Your task to perform on an android device: install app "Reddit" Image 0: 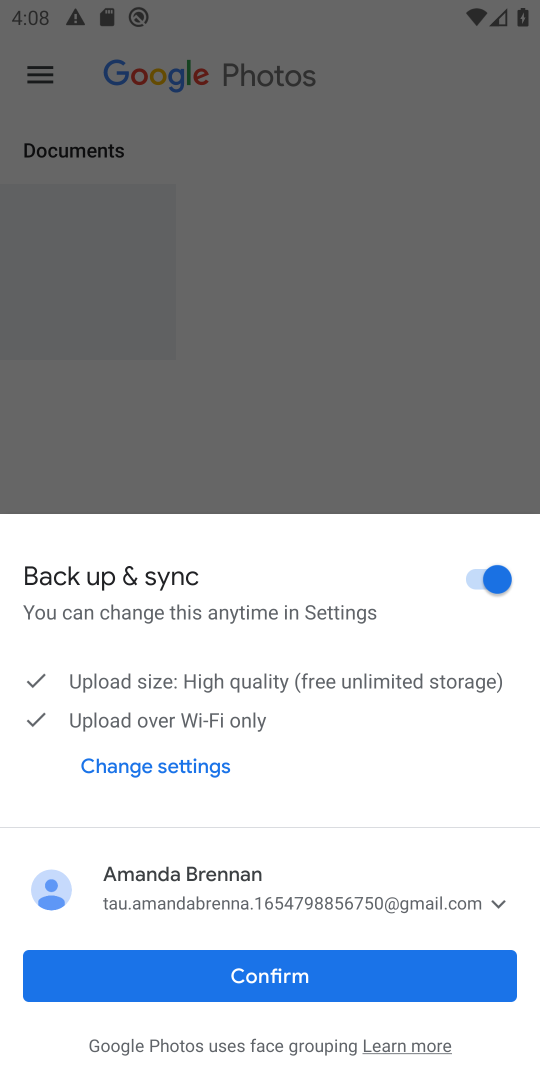
Step 0: press home button
Your task to perform on an android device: install app "Reddit" Image 1: 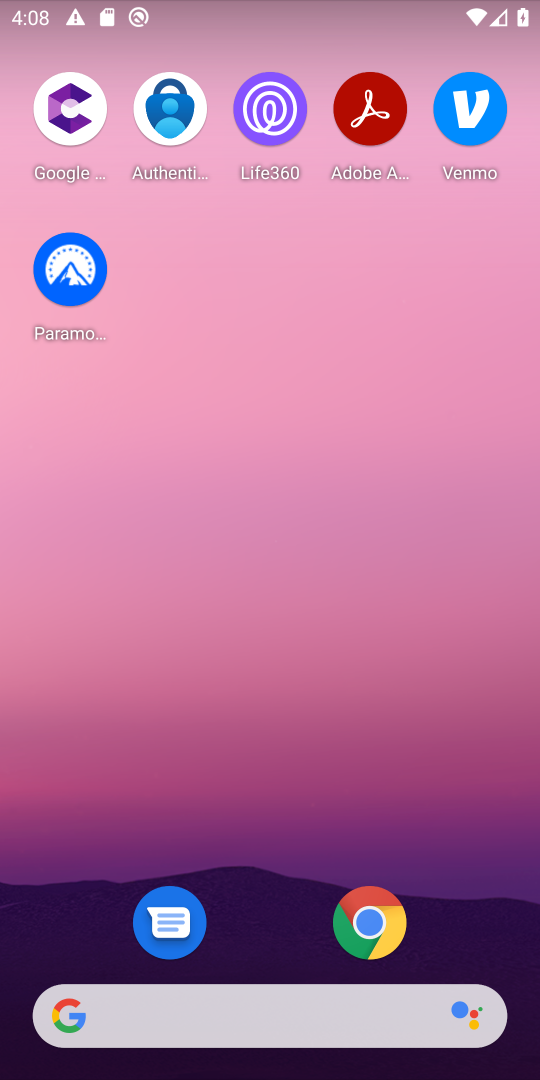
Step 1: drag from (272, 936) to (325, 0)
Your task to perform on an android device: install app "Reddit" Image 2: 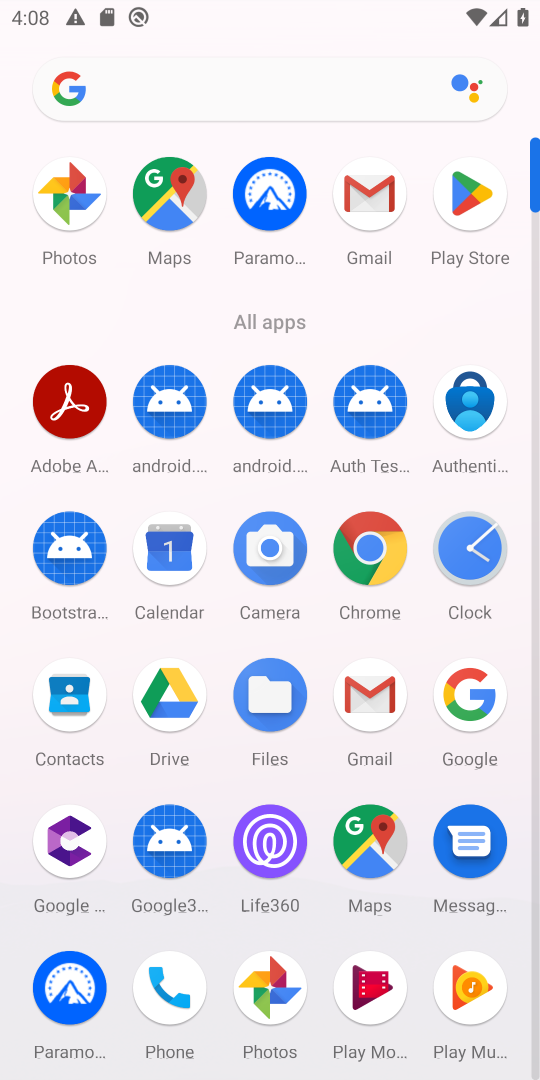
Step 2: click (473, 197)
Your task to perform on an android device: install app "Reddit" Image 3: 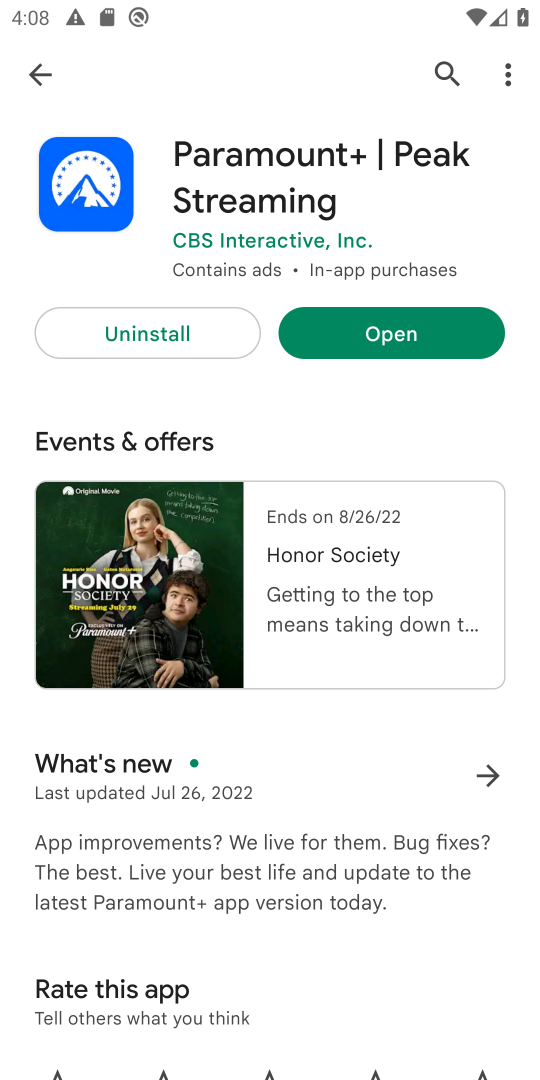
Step 3: click (440, 69)
Your task to perform on an android device: install app "Reddit" Image 4: 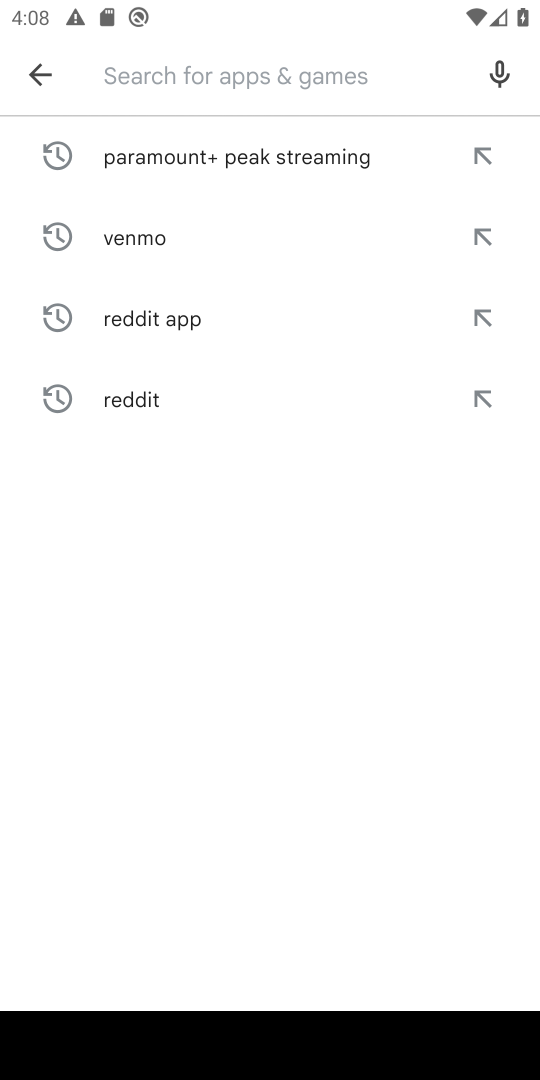
Step 4: type "Reddit"
Your task to perform on an android device: install app "Reddit" Image 5: 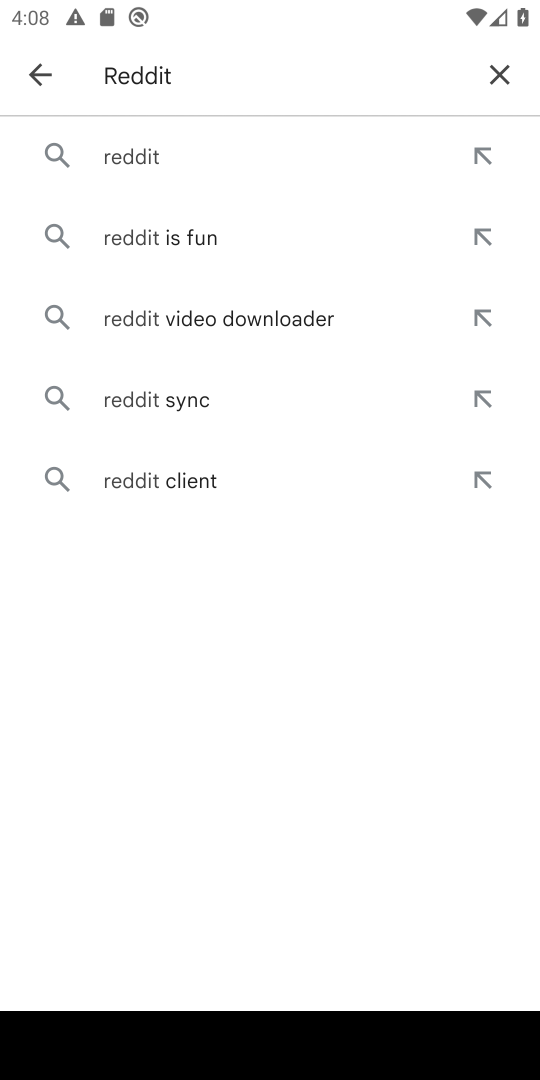
Step 5: click (135, 165)
Your task to perform on an android device: install app "Reddit" Image 6: 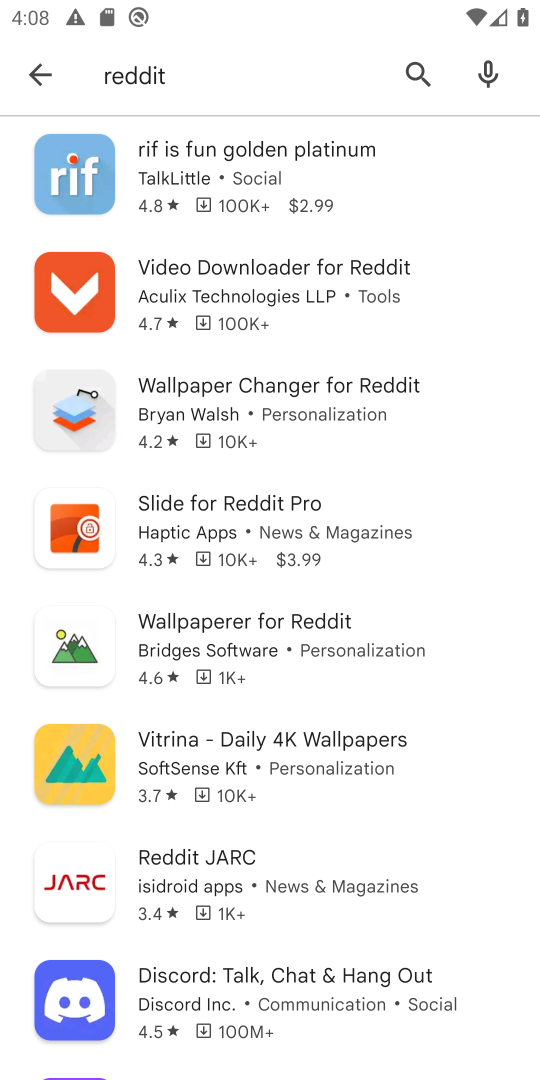
Step 6: task complete